Your task to perform on an android device: open app "Speedtest by Ookla" (install if not already installed) Image 0: 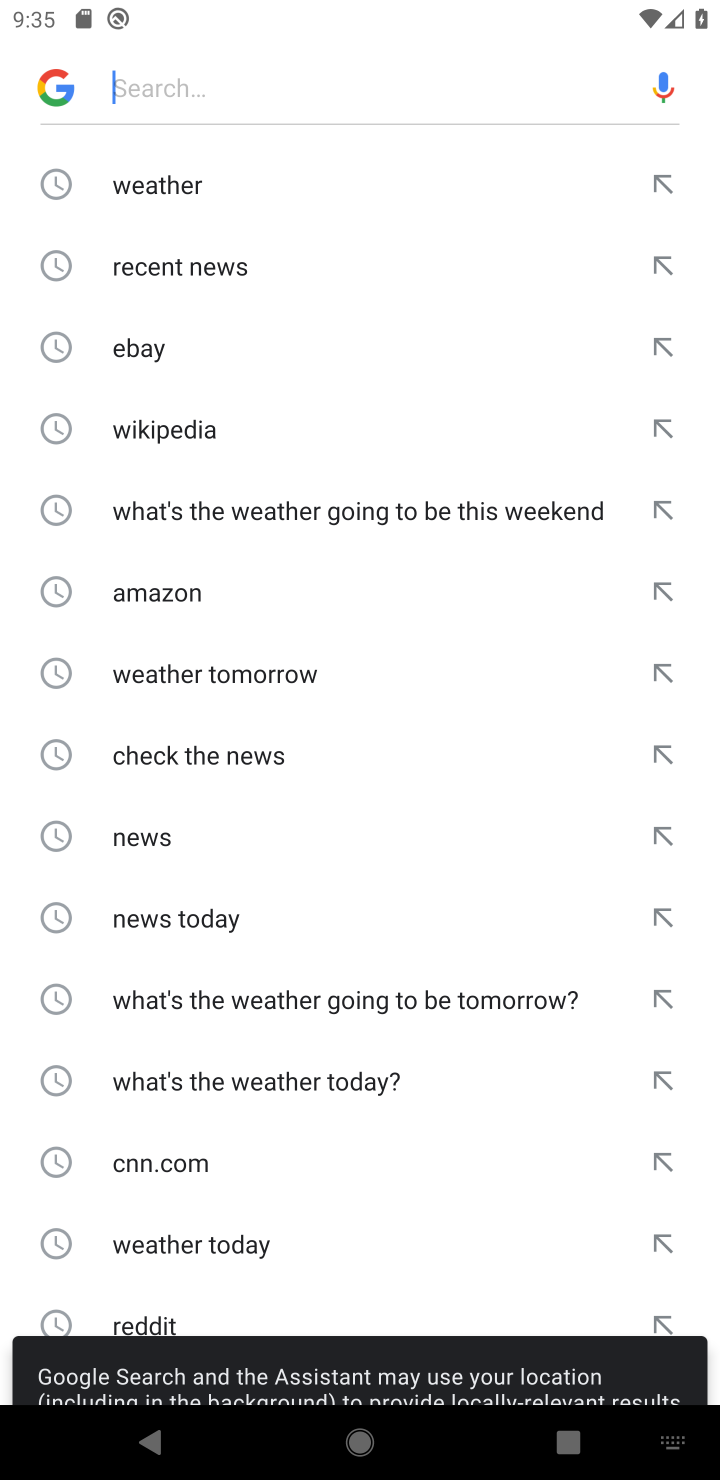
Step 0: press home button
Your task to perform on an android device: open app "Speedtest by Ookla" (install if not already installed) Image 1: 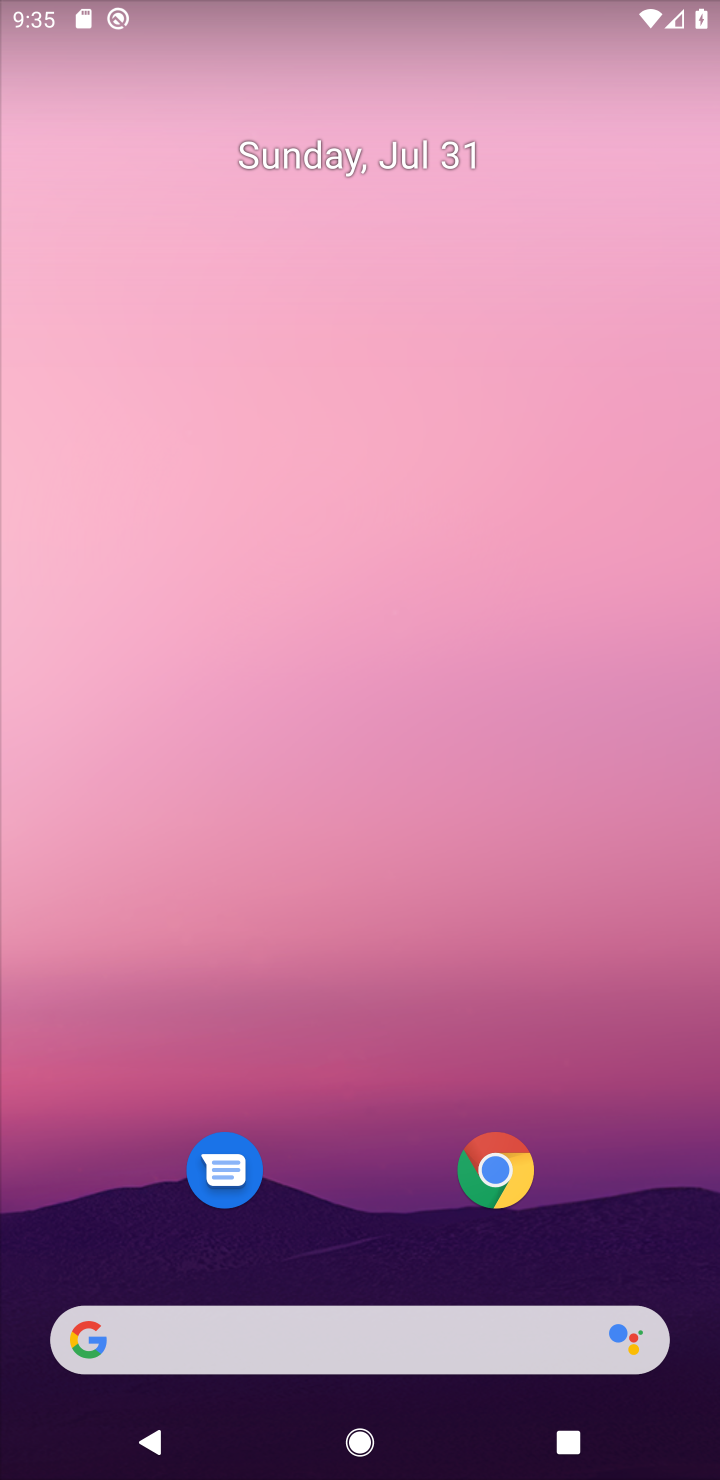
Step 1: drag from (680, 1229) to (361, 88)
Your task to perform on an android device: open app "Speedtest by Ookla" (install if not already installed) Image 2: 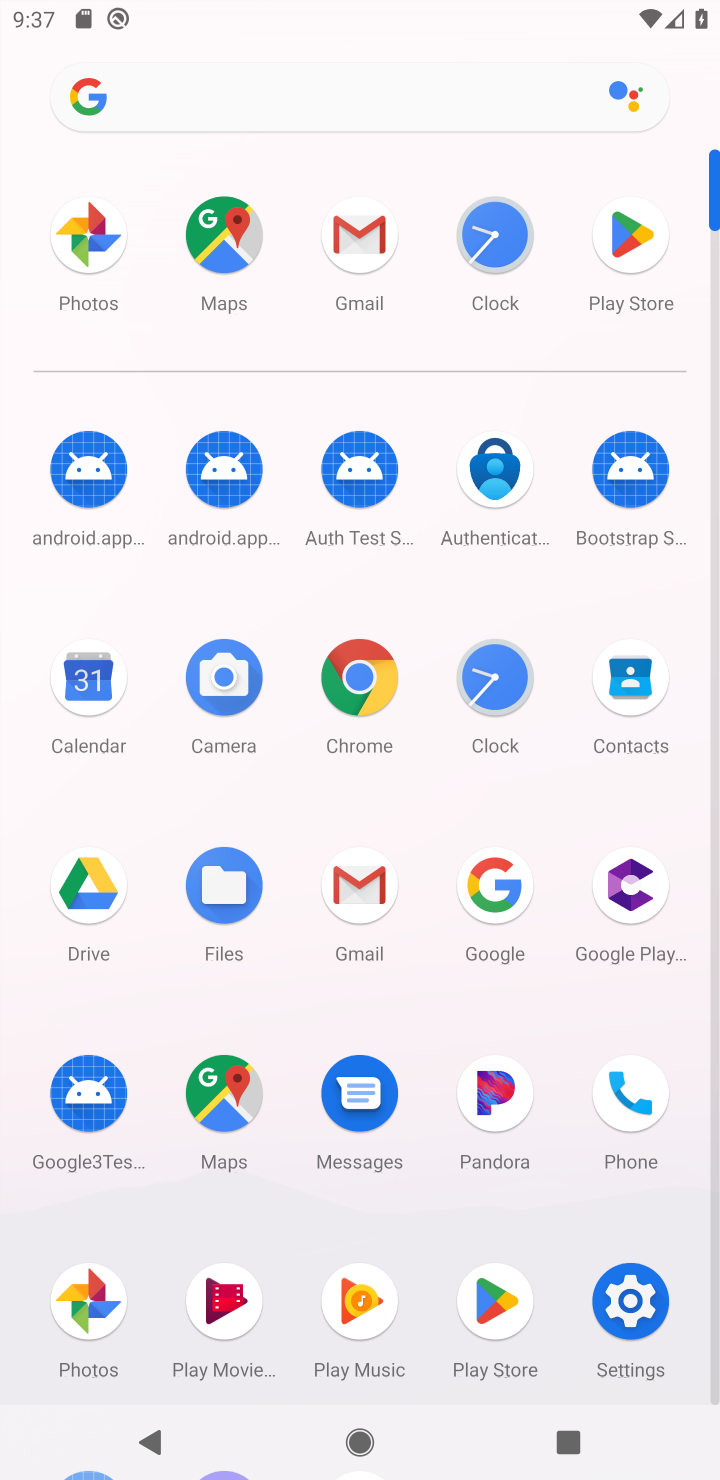
Step 2: click (617, 229)
Your task to perform on an android device: open app "Speedtest by Ookla" (install if not already installed) Image 3: 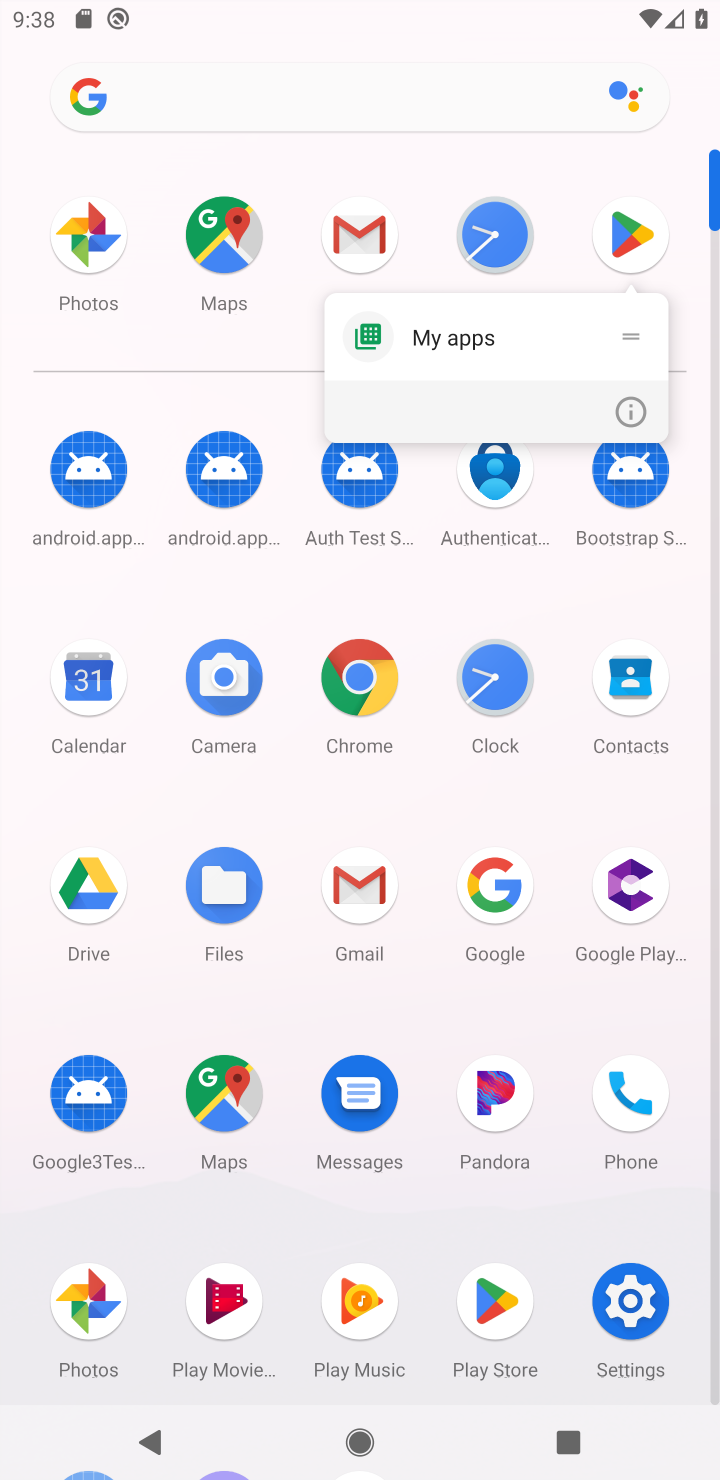
Step 3: click (617, 229)
Your task to perform on an android device: open app "Speedtest by Ookla" (install if not already installed) Image 4: 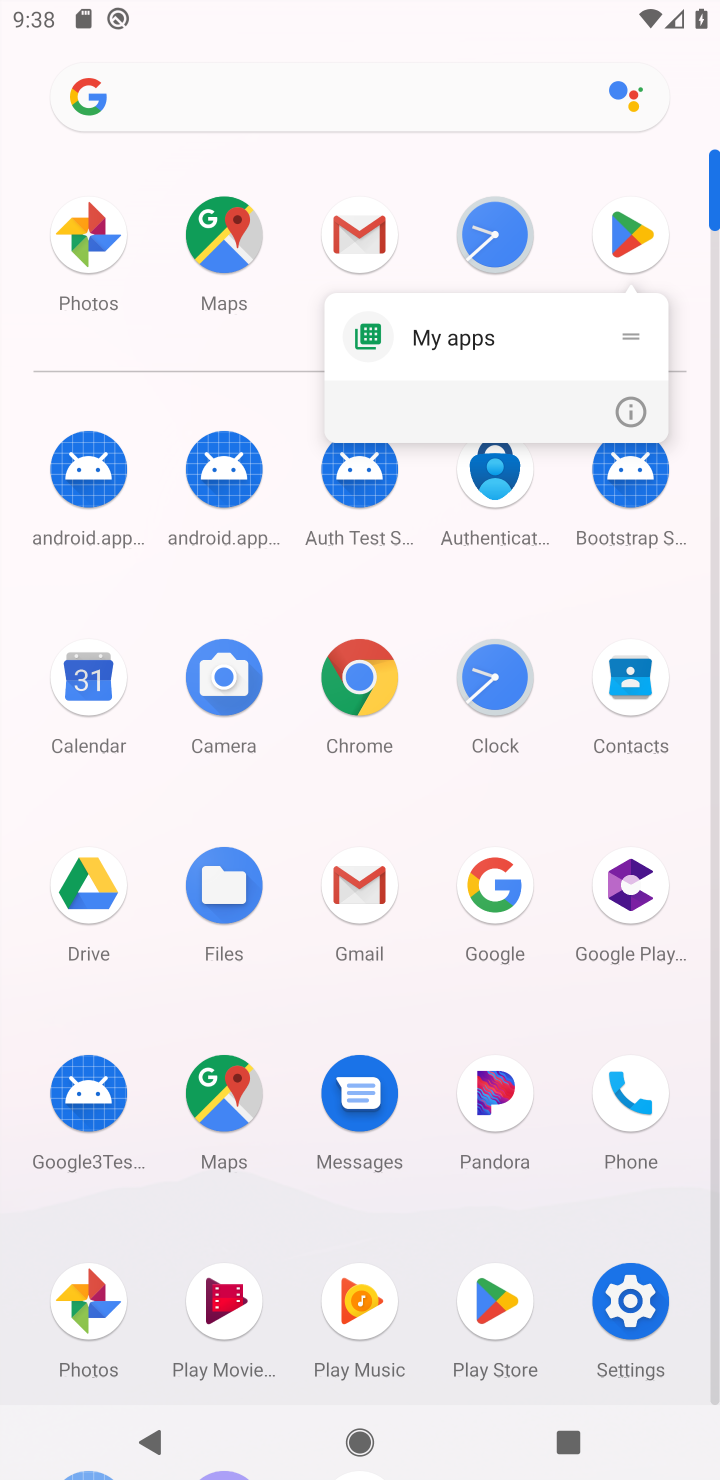
Step 4: click (614, 229)
Your task to perform on an android device: open app "Speedtest by Ookla" (install if not already installed) Image 5: 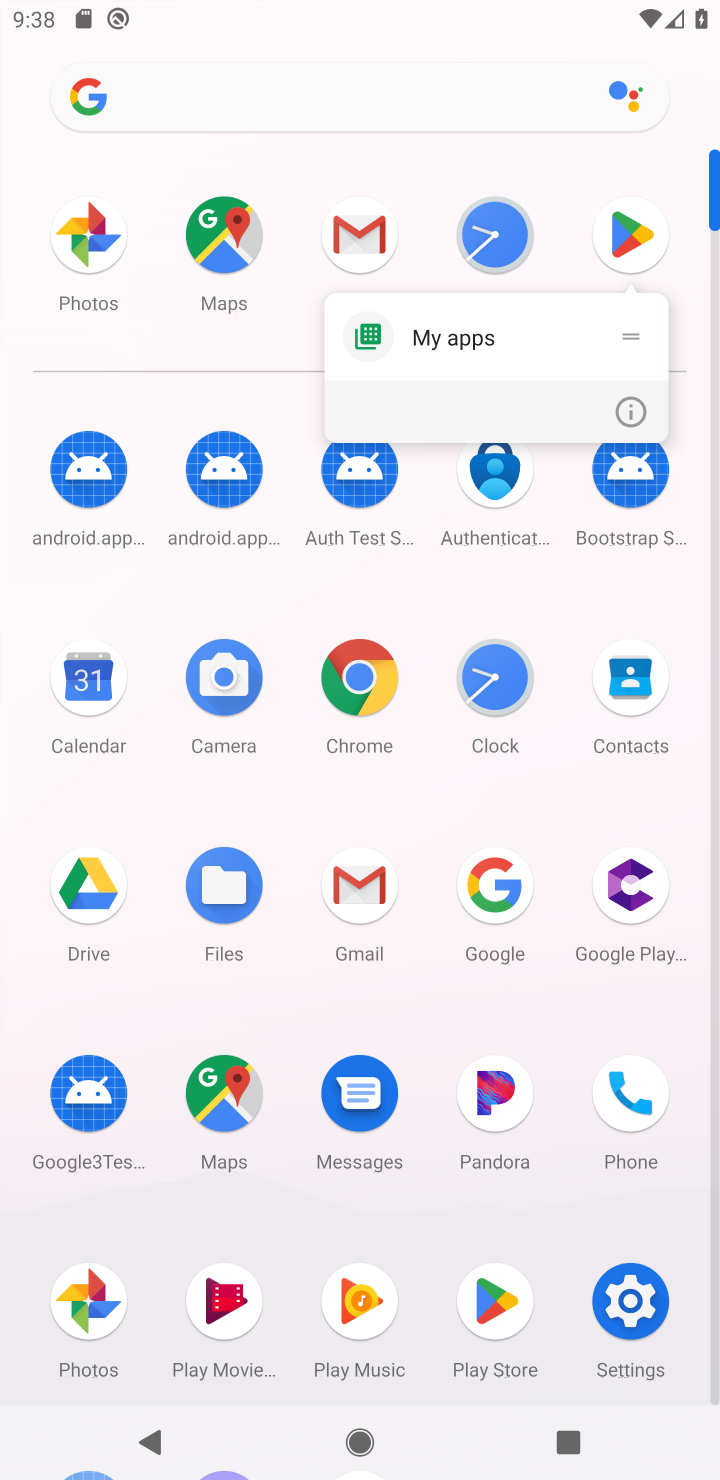
Step 5: click (612, 231)
Your task to perform on an android device: open app "Speedtest by Ookla" (install if not already installed) Image 6: 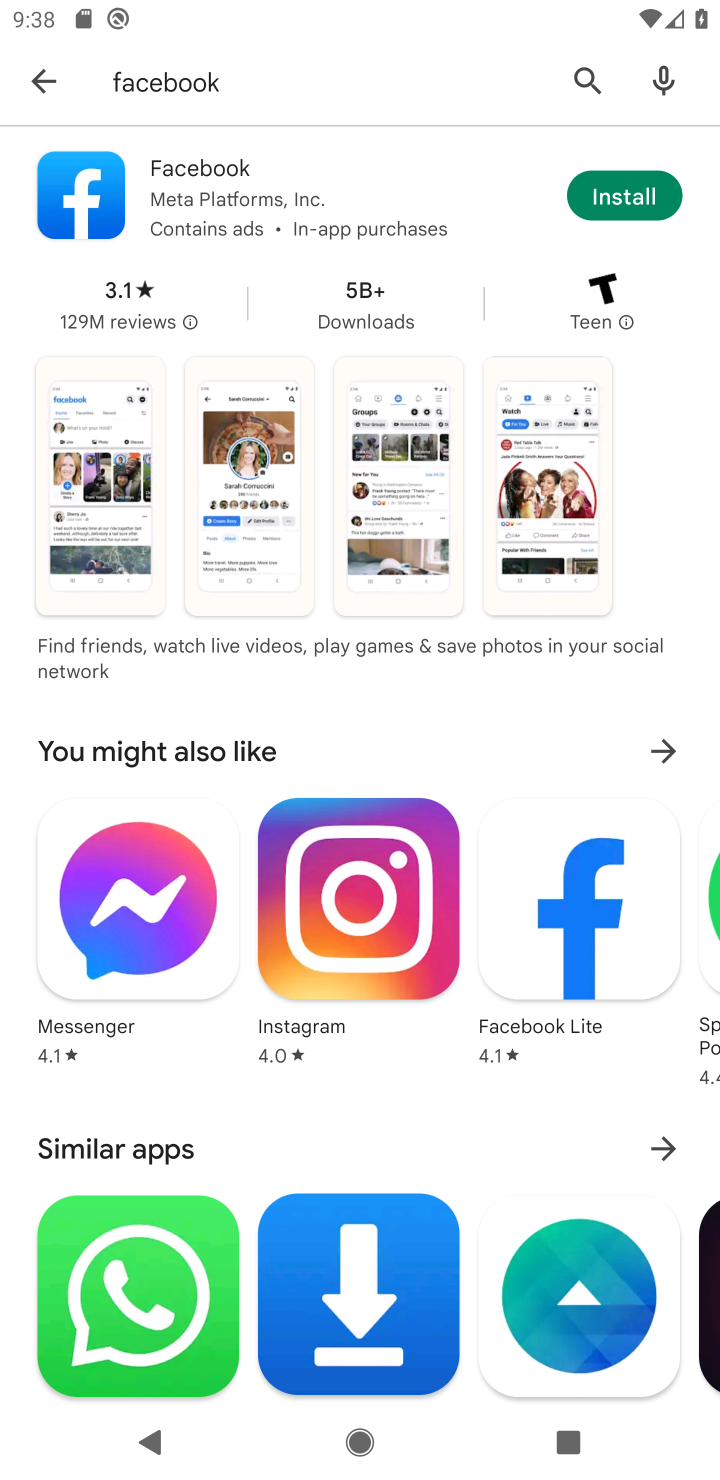
Step 6: press back button
Your task to perform on an android device: open app "Speedtest by Ookla" (install if not already installed) Image 7: 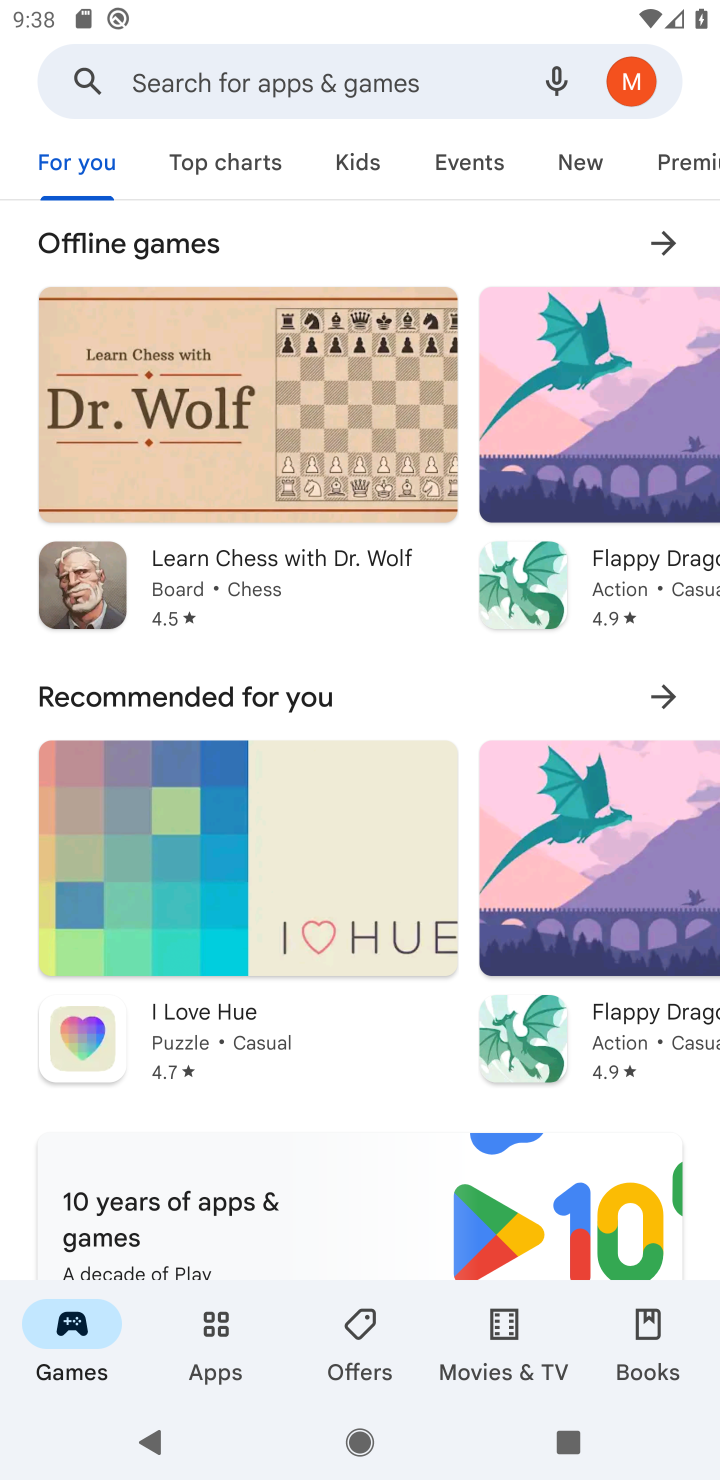
Step 7: click (267, 66)
Your task to perform on an android device: open app "Speedtest by Ookla" (install if not already installed) Image 8: 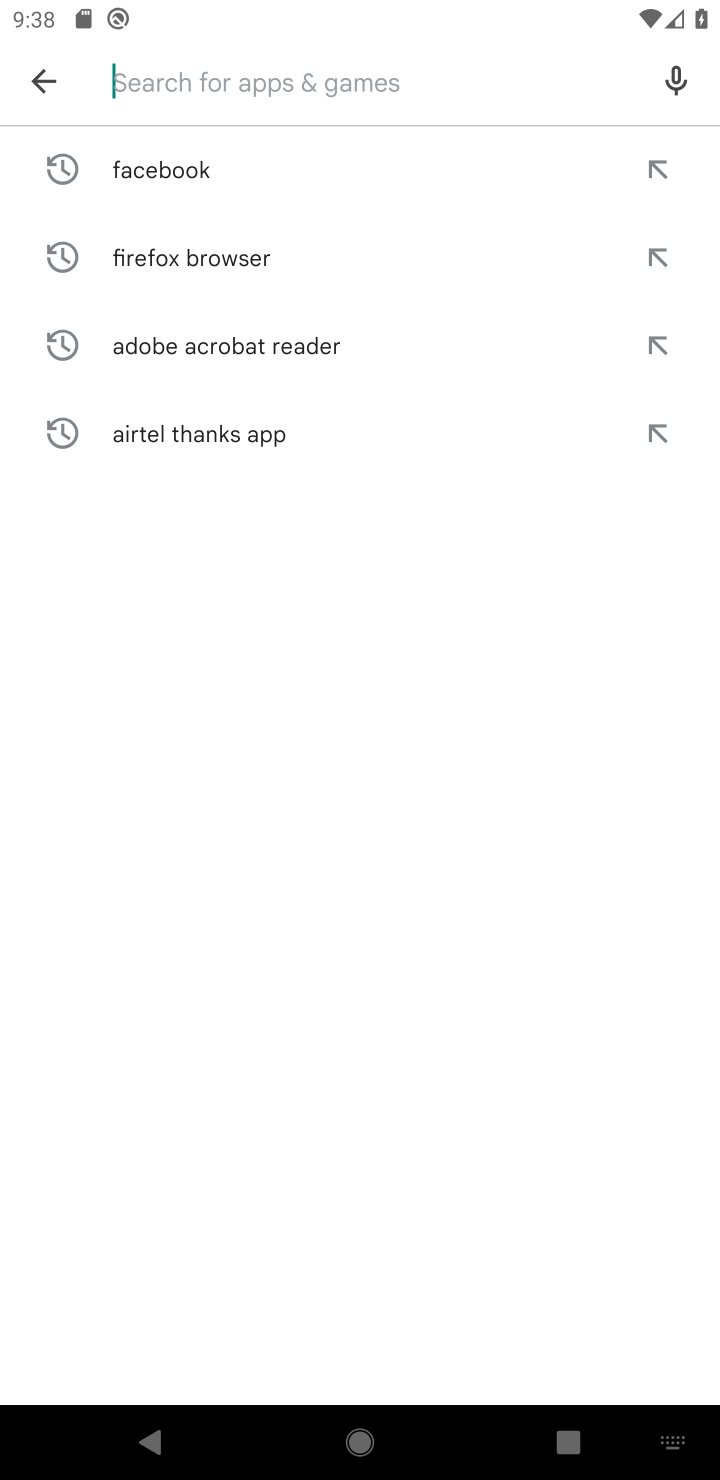
Step 8: type "Speedtest by Ookla"
Your task to perform on an android device: open app "Speedtest by Ookla" (install if not already installed) Image 9: 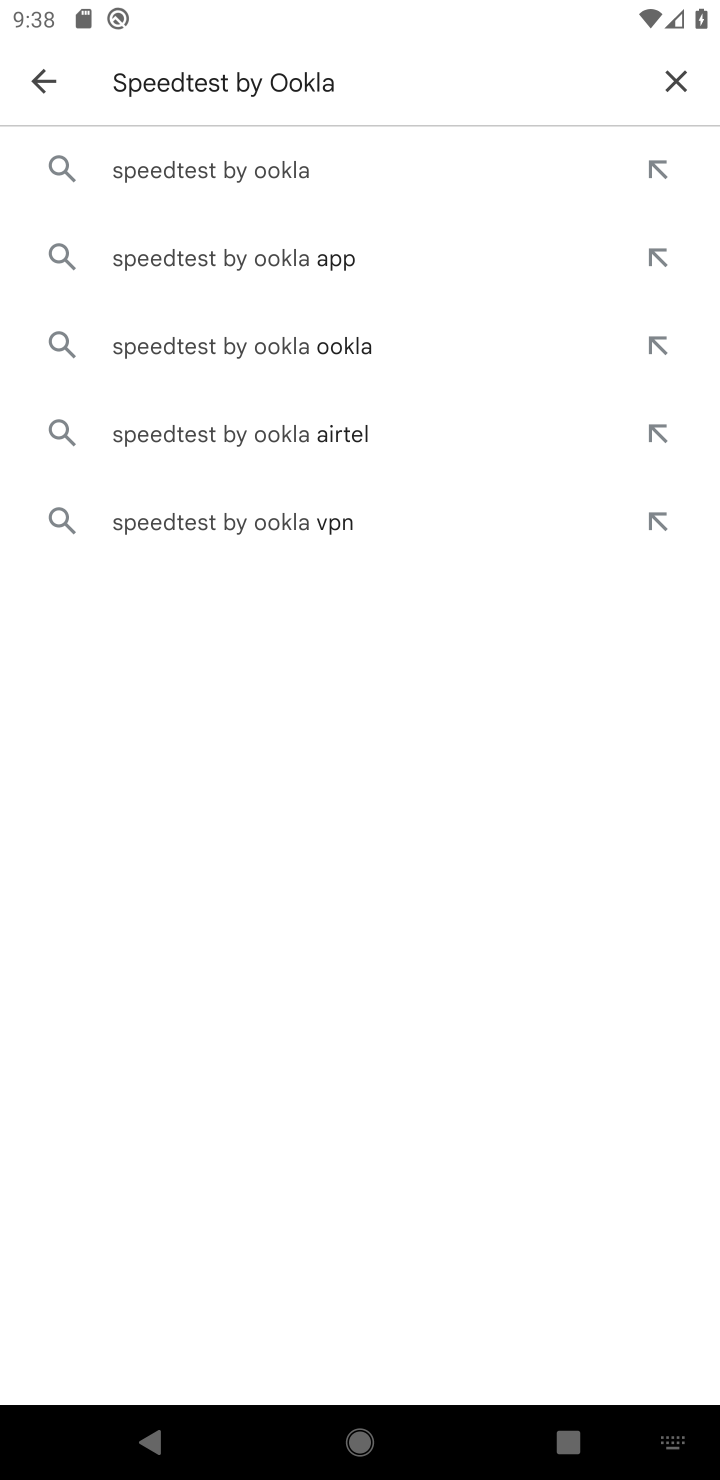
Step 9: click (194, 172)
Your task to perform on an android device: open app "Speedtest by Ookla" (install if not already installed) Image 10: 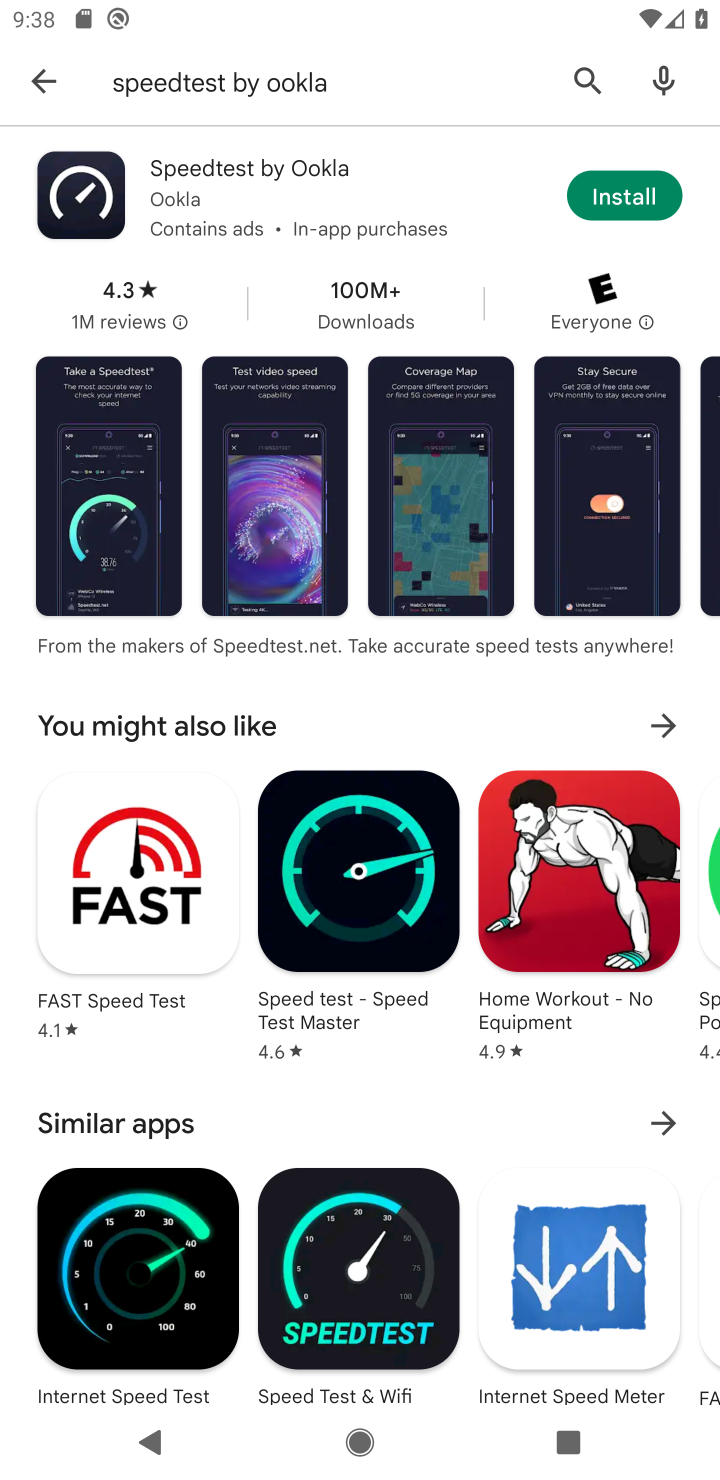
Step 10: task complete